Your task to perform on an android device: Show me recent news Image 0: 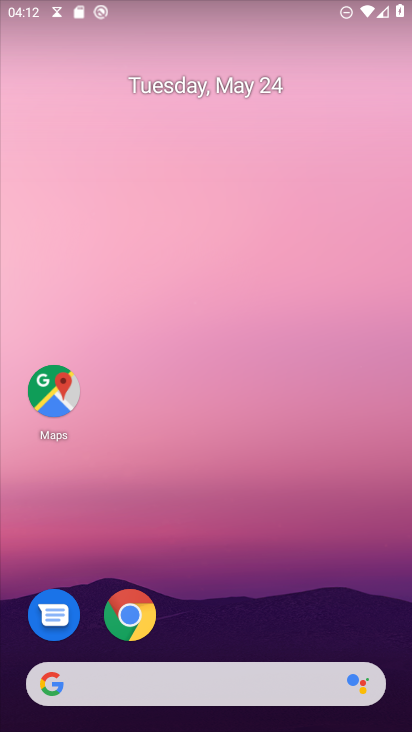
Step 0: drag from (270, 589) to (239, 25)
Your task to perform on an android device: Show me recent news Image 1: 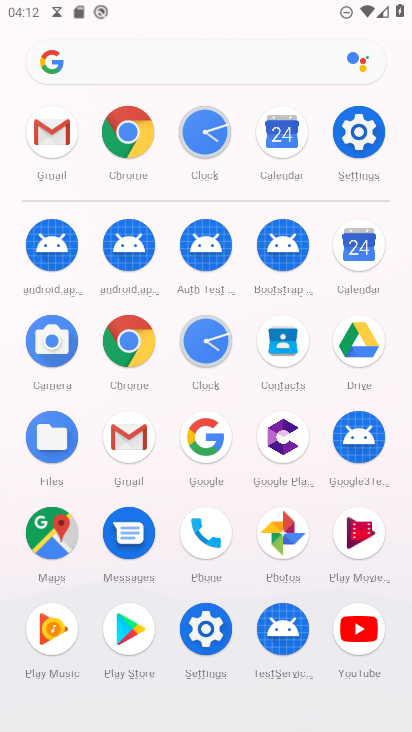
Step 1: click (126, 335)
Your task to perform on an android device: Show me recent news Image 2: 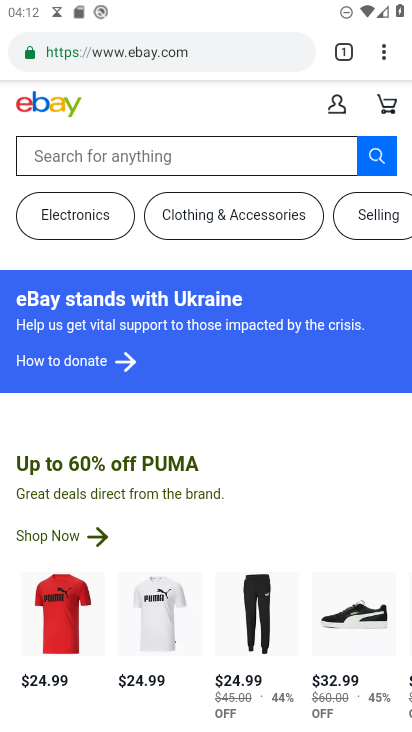
Step 2: click (177, 36)
Your task to perform on an android device: Show me recent news Image 3: 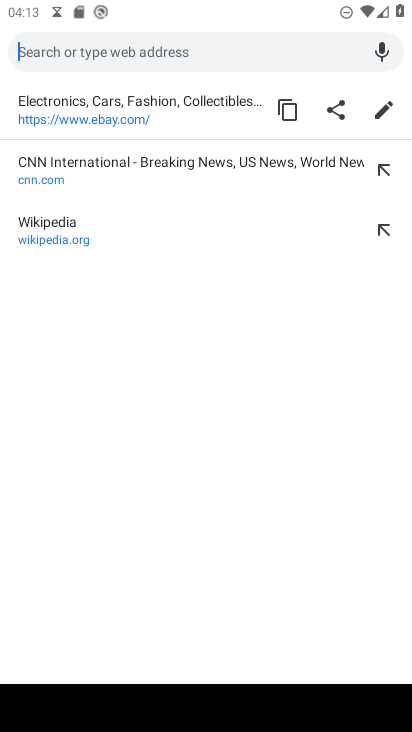
Step 3: type "Show me recent news"
Your task to perform on an android device: Show me recent news Image 4: 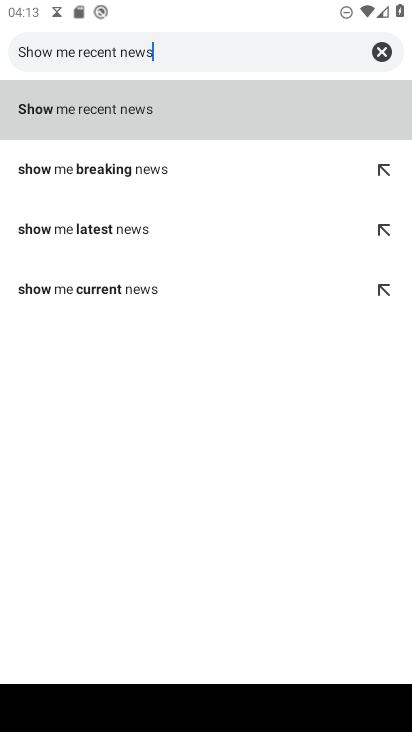
Step 4: click (91, 99)
Your task to perform on an android device: Show me recent news Image 5: 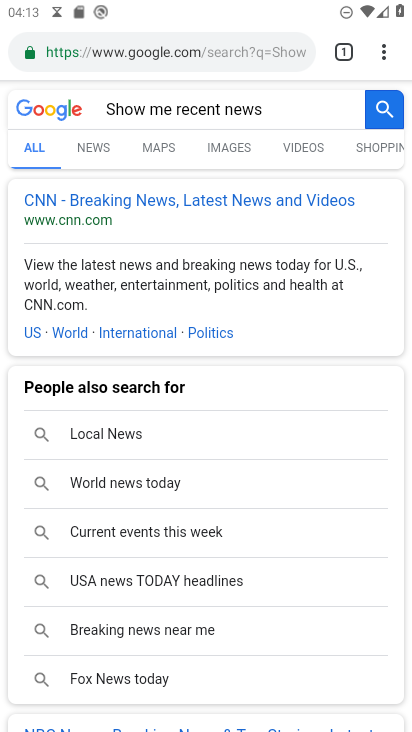
Step 5: click (99, 145)
Your task to perform on an android device: Show me recent news Image 6: 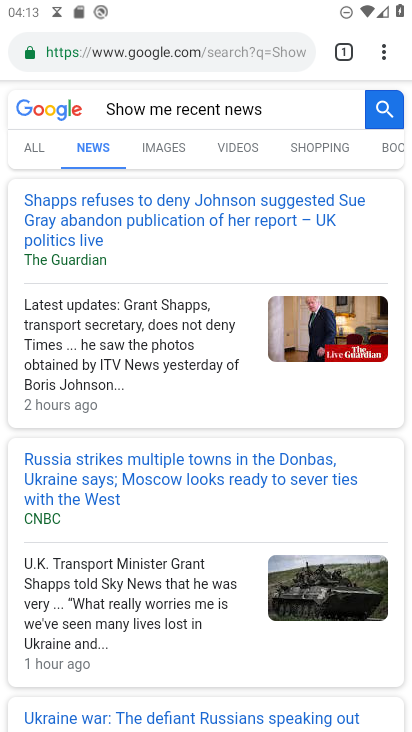
Step 6: drag from (134, 562) to (162, 291)
Your task to perform on an android device: Show me recent news Image 7: 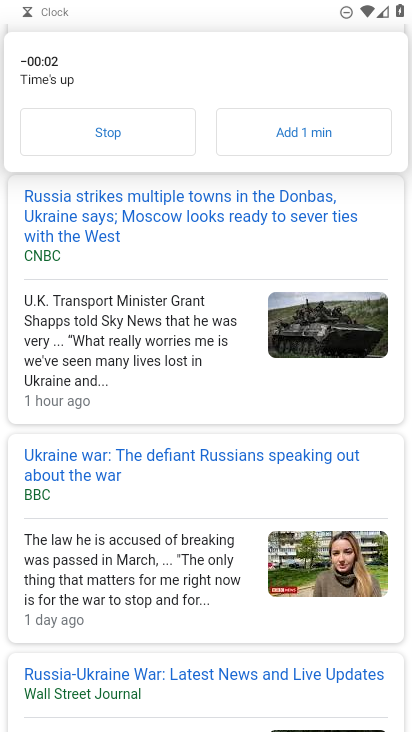
Step 7: click (103, 124)
Your task to perform on an android device: Show me recent news Image 8: 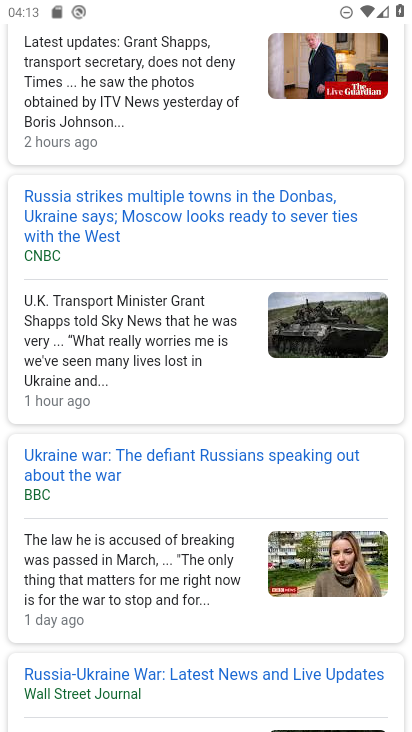
Step 8: task complete